Your task to perform on an android device: Open ESPN.com Image 0: 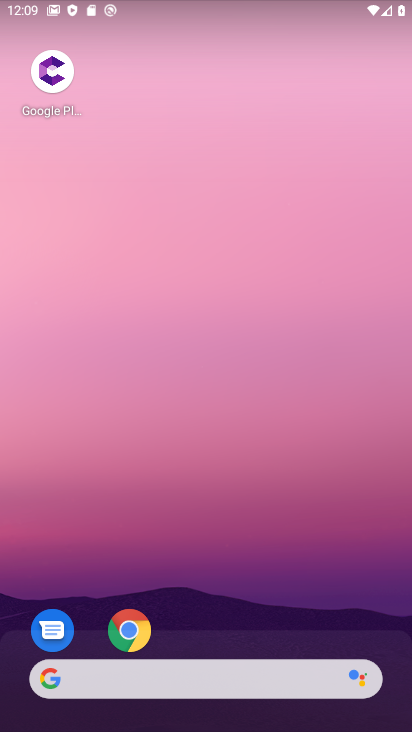
Step 0: click (122, 626)
Your task to perform on an android device: Open ESPN.com Image 1: 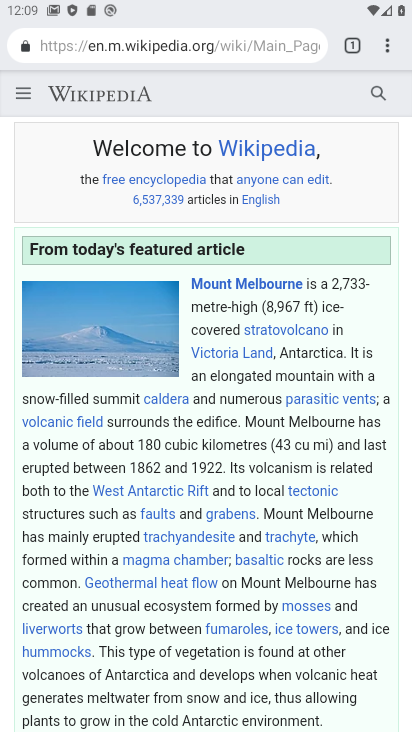
Step 1: click (391, 41)
Your task to perform on an android device: Open ESPN.com Image 2: 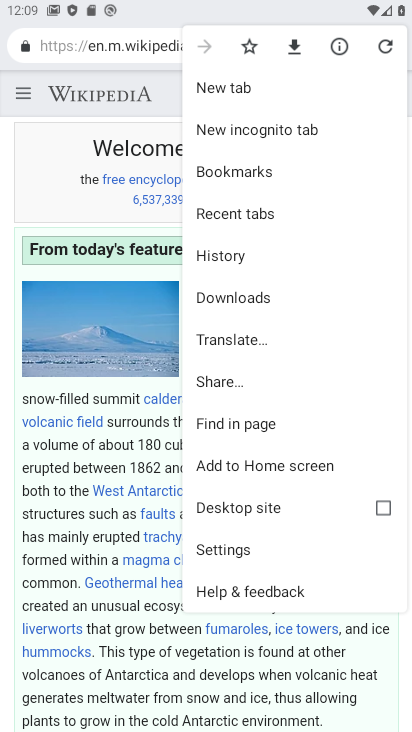
Step 2: click (241, 81)
Your task to perform on an android device: Open ESPN.com Image 3: 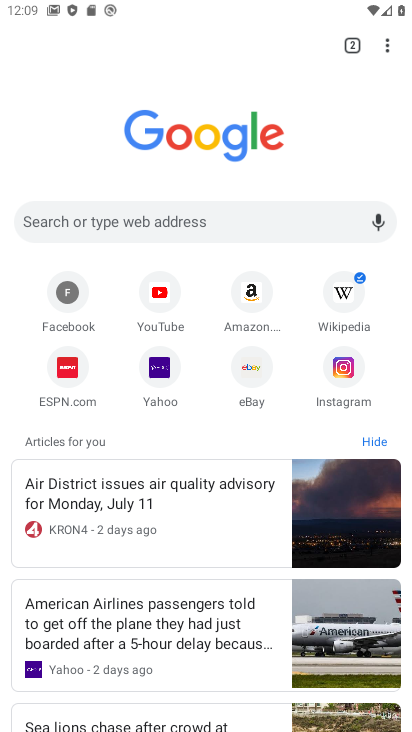
Step 3: click (71, 369)
Your task to perform on an android device: Open ESPN.com Image 4: 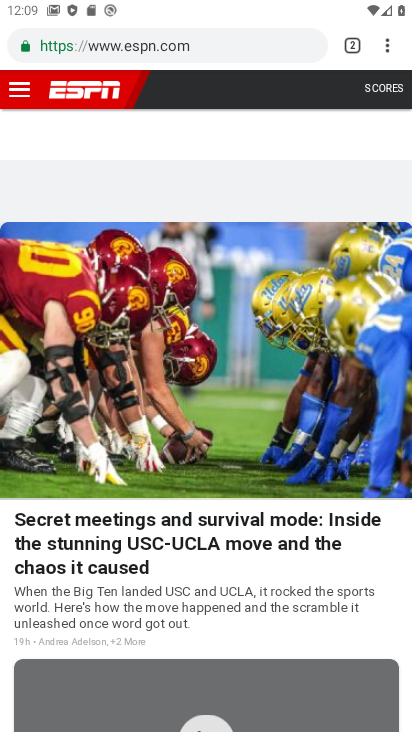
Step 4: task complete